Your task to perform on an android device: turn off notifications in google photos Image 0: 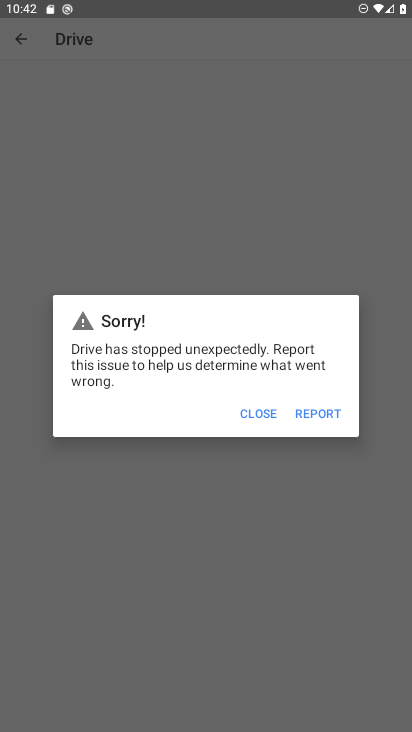
Step 0: press home button
Your task to perform on an android device: turn off notifications in google photos Image 1: 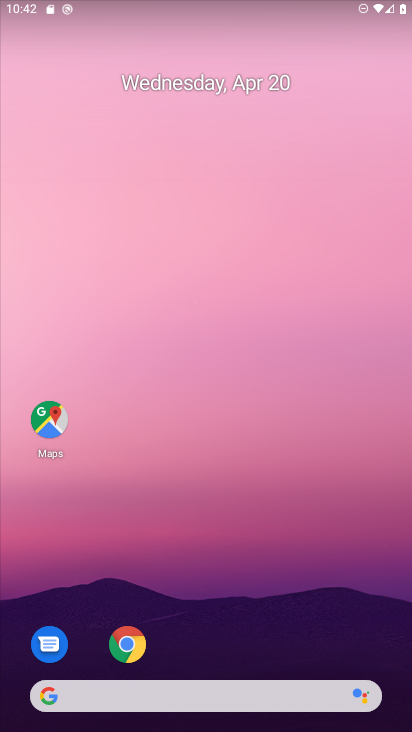
Step 1: drag from (349, 628) to (232, 77)
Your task to perform on an android device: turn off notifications in google photos Image 2: 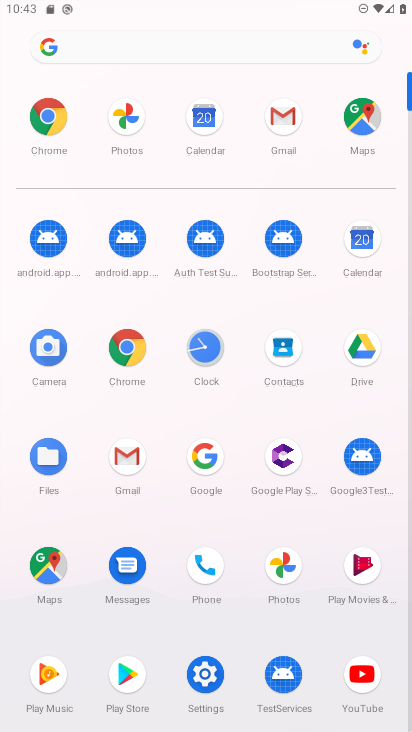
Step 2: click (277, 573)
Your task to perform on an android device: turn off notifications in google photos Image 3: 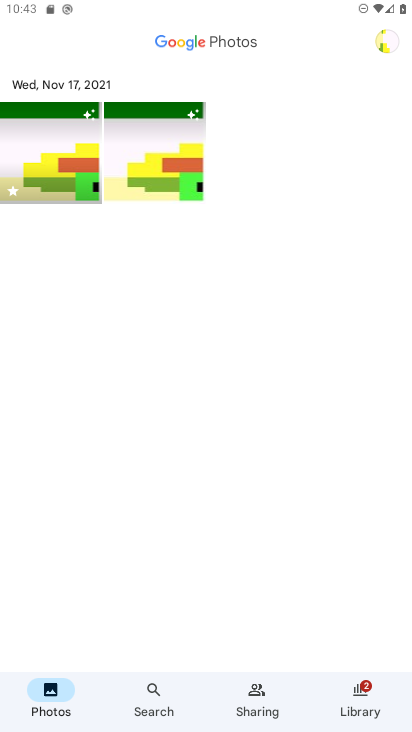
Step 3: click (386, 38)
Your task to perform on an android device: turn off notifications in google photos Image 4: 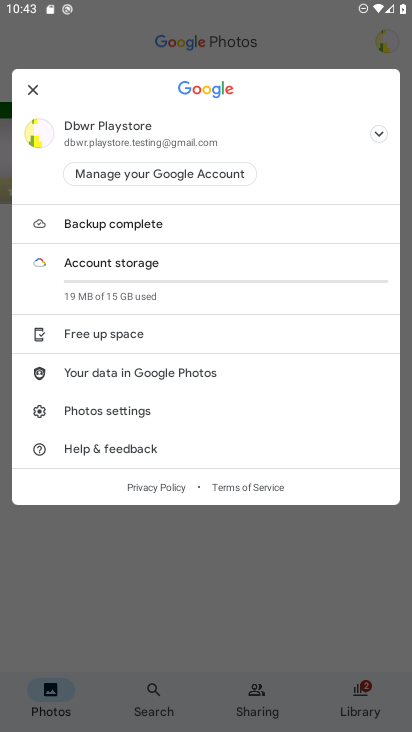
Step 4: click (194, 406)
Your task to perform on an android device: turn off notifications in google photos Image 5: 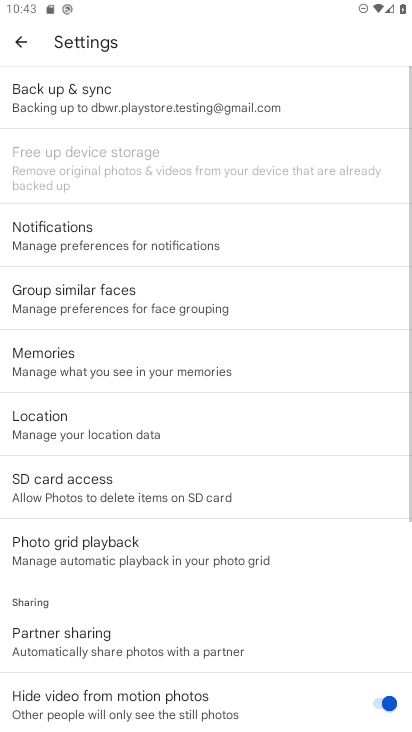
Step 5: click (164, 247)
Your task to perform on an android device: turn off notifications in google photos Image 6: 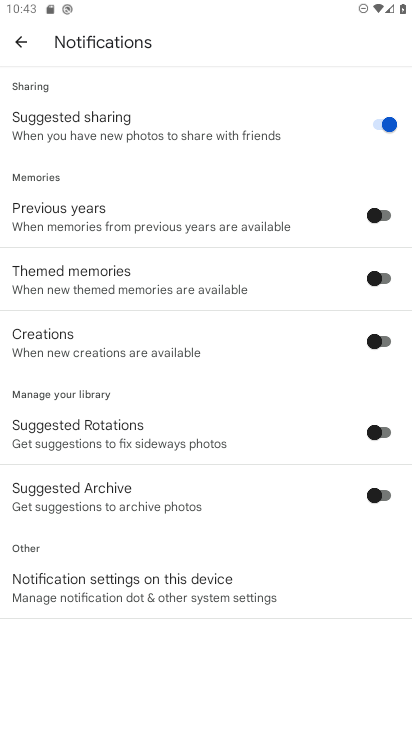
Step 6: task complete